Your task to perform on an android device: change the clock display to digital Image 0: 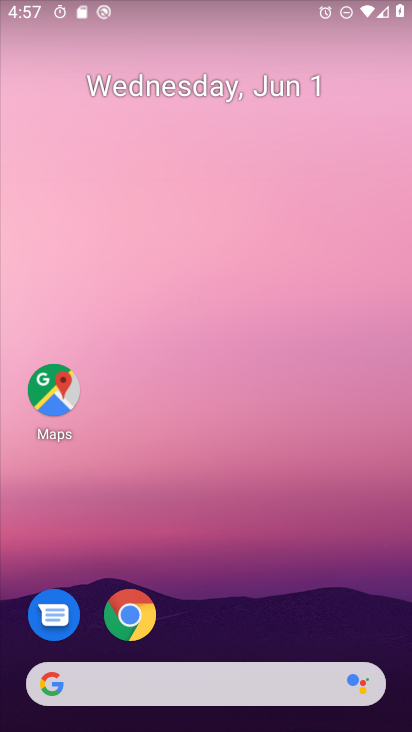
Step 0: drag from (304, 697) to (312, 215)
Your task to perform on an android device: change the clock display to digital Image 1: 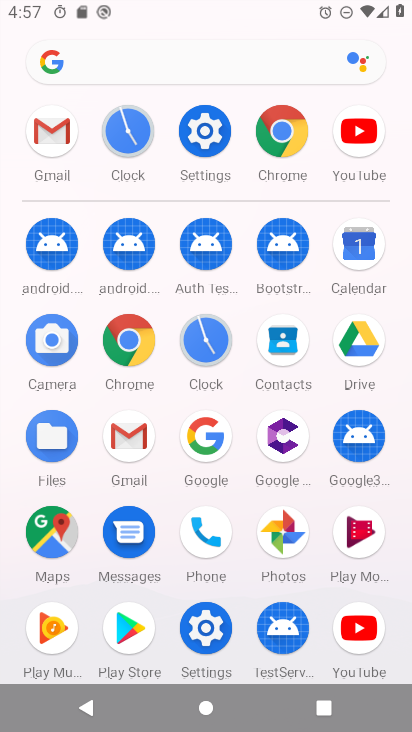
Step 1: click (191, 346)
Your task to perform on an android device: change the clock display to digital Image 2: 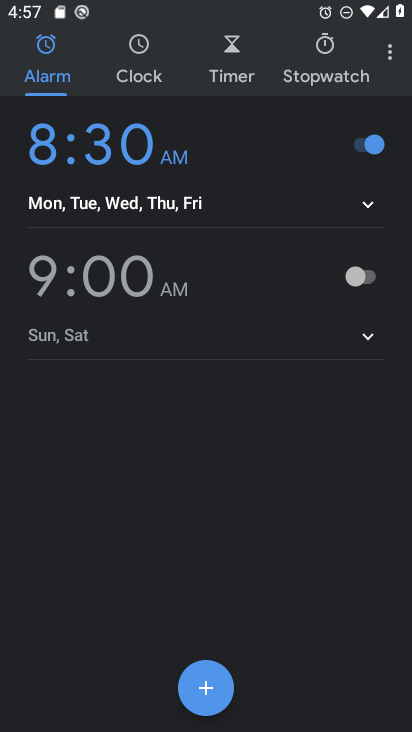
Step 2: click (384, 52)
Your task to perform on an android device: change the clock display to digital Image 3: 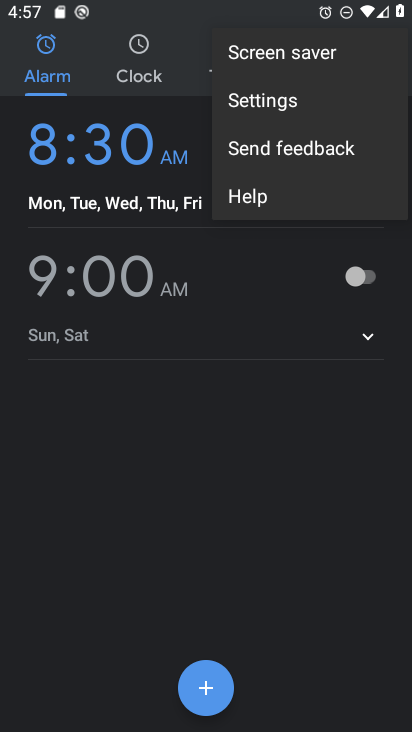
Step 3: click (312, 106)
Your task to perform on an android device: change the clock display to digital Image 4: 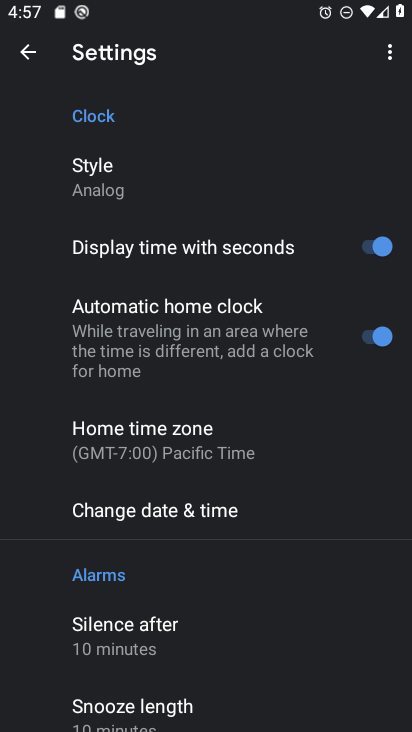
Step 4: click (150, 176)
Your task to perform on an android device: change the clock display to digital Image 5: 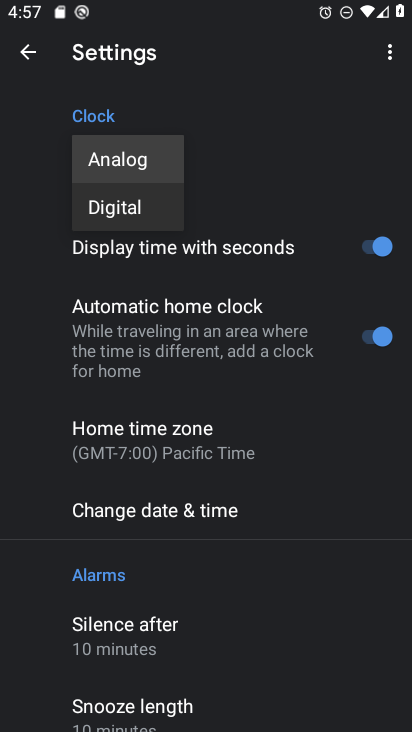
Step 5: click (155, 207)
Your task to perform on an android device: change the clock display to digital Image 6: 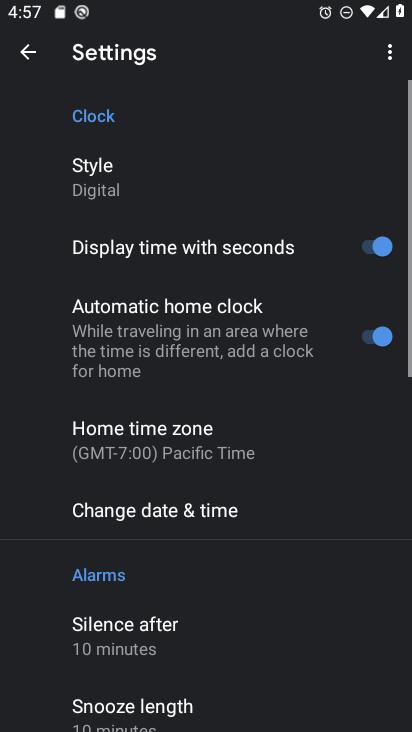
Step 6: task complete